Your task to perform on an android device: Show me popular videos on Youtube Image 0: 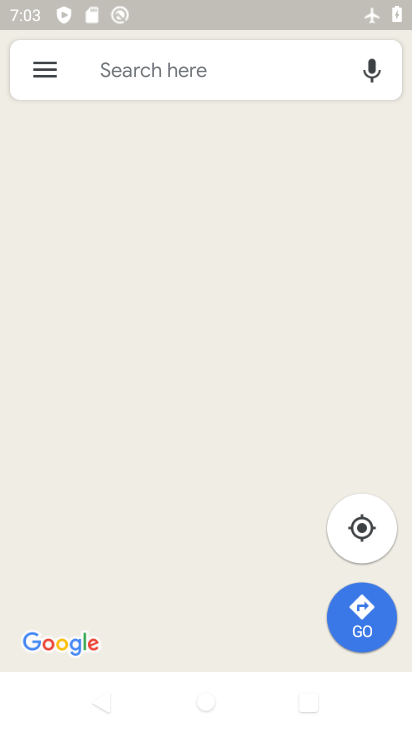
Step 0: press home button
Your task to perform on an android device: Show me popular videos on Youtube Image 1: 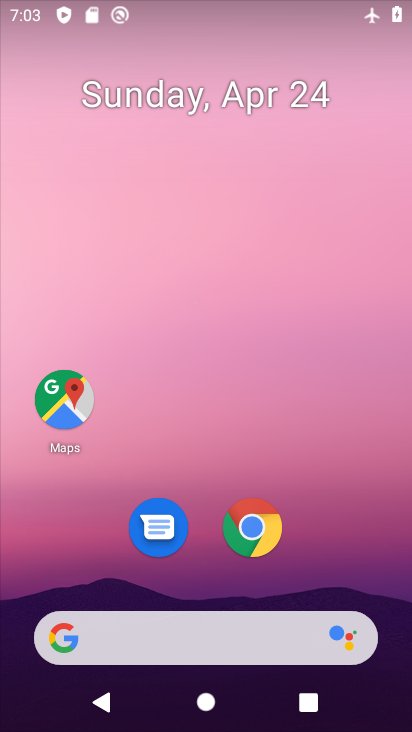
Step 1: drag from (355, 537) to (337, 29)
Your task to perform on an android device: Show me popular videos on Youtube Image 2: 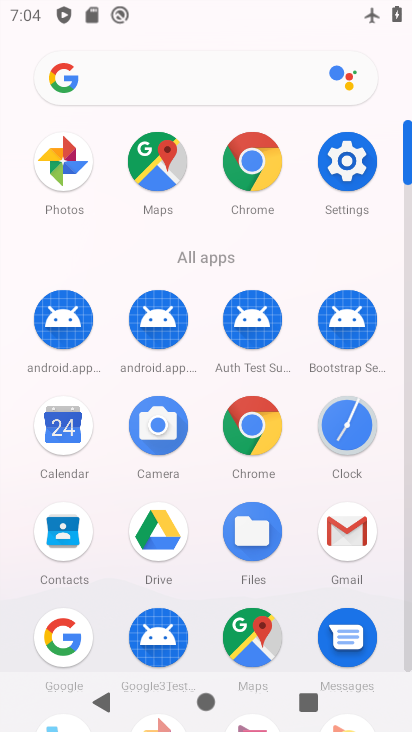
Step 2: click (407, 663)
Your task to perform on an android device: Show me popular videos on Youtube Image 3: 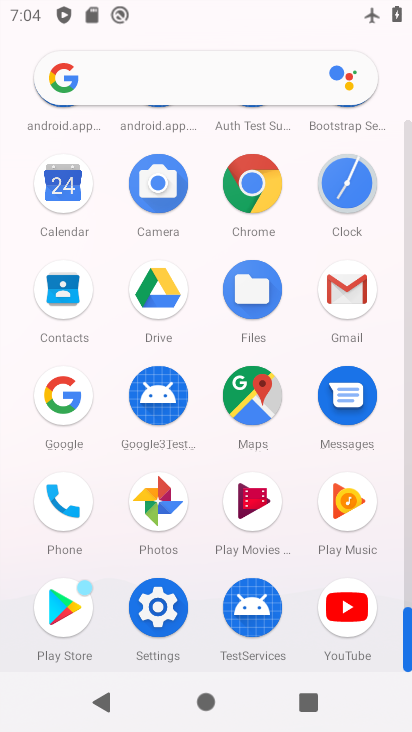
Step 3: click (341, 616)
Your task to perform on an android device: Show me popular videos on Youtube Image 4: 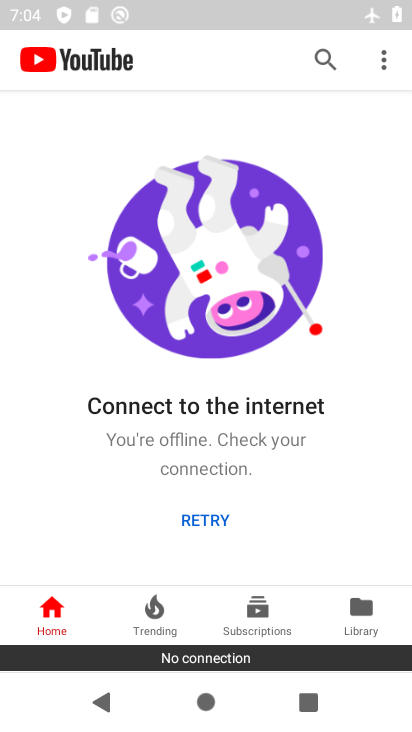
Step 4: click (211, 503)
Your task to perform on an android device: Show me popular videos on Youtube Image 5: 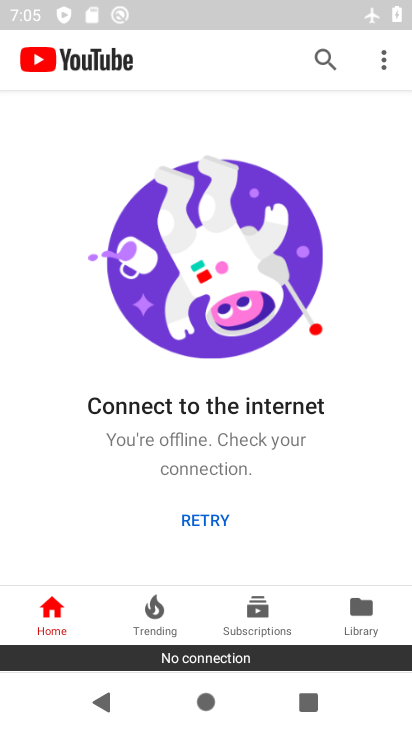
Step 5: task complete